Your task to perform on an android device: turn off location Image 0: 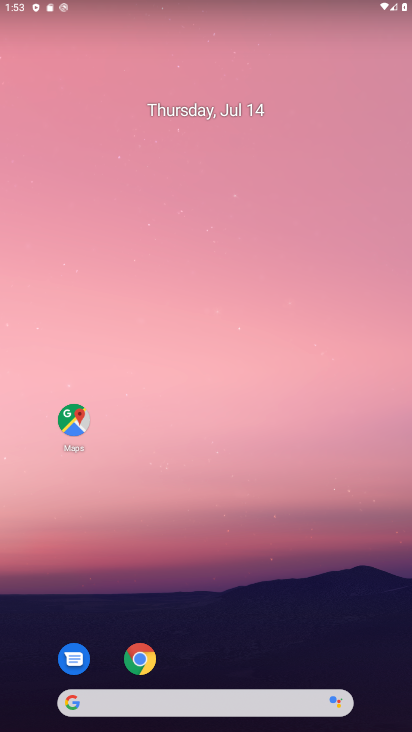
Step 0: drag from (250, 714) to (309, 173)
Your task to perform on an android device: turn off location Image 1: 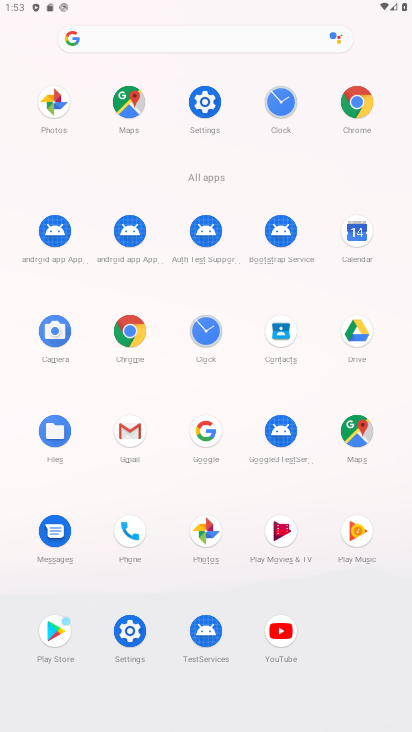
Step 1: click (209, 98)
Your task to perform on an android device: turn off location Image 2: 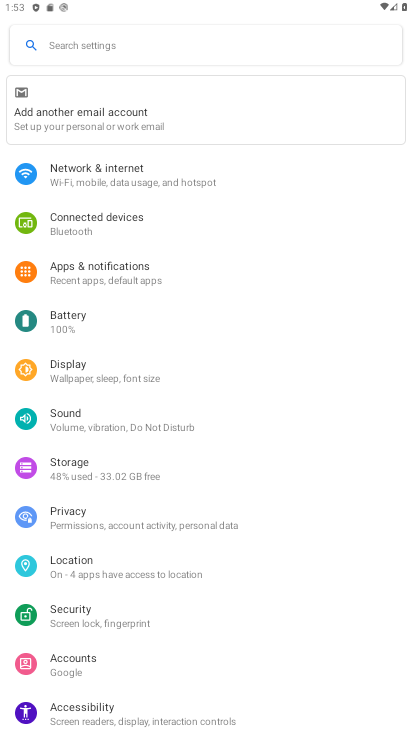
Step 2: click (84, 560)
Your task to perform on an android device: turn off location Image 3: 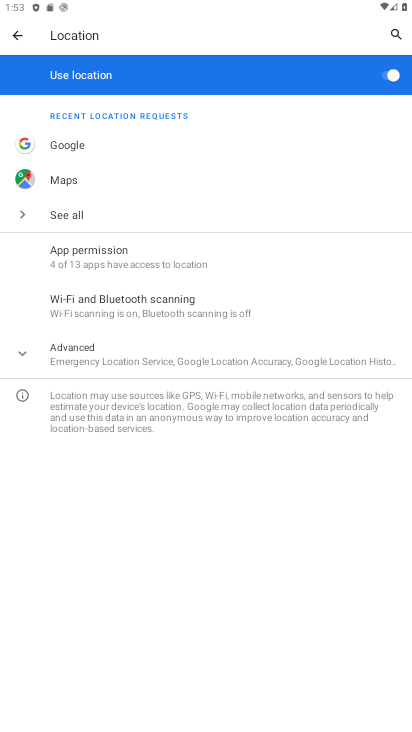
Step 3: click (386, 82)
Your task to perform on an android device: turn off location Image 4: 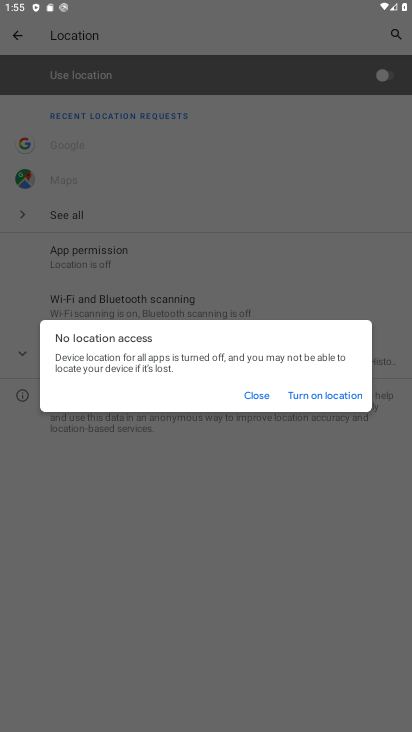
Step 4: task complete